Your task to perform on an android device: Go to accessibility settings Image 0: 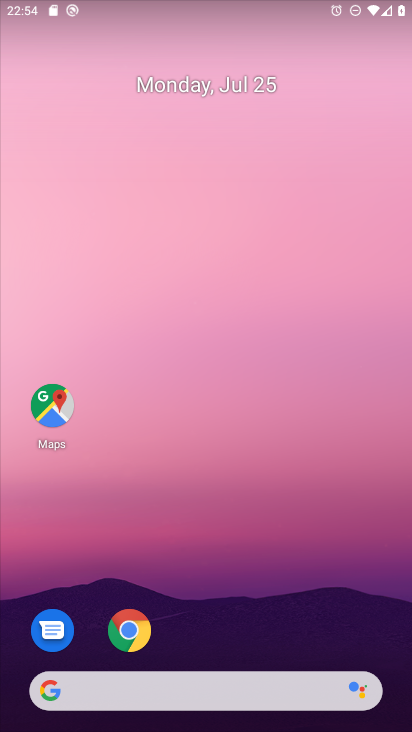
Step 0: drag from (259, 595) to (189, 16)
Your task to perform on an android device: Go to accessibility settings Image 1: 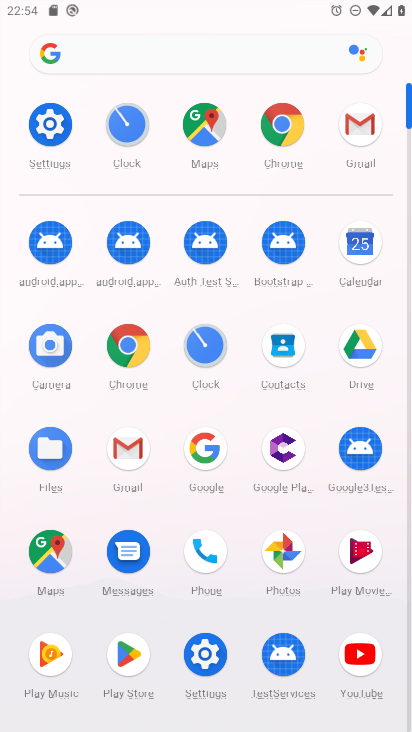
Step 1: click (45, 123)
Your task to perform on an android device: Go to accessibility settings Image 2: 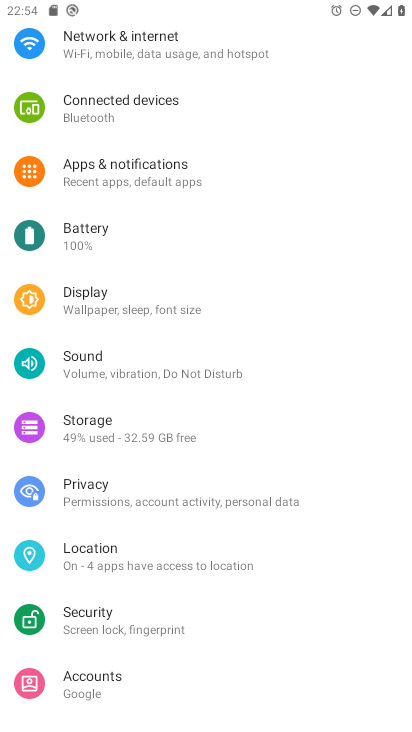
Step 2: drag from (229, 526) to (206, 140)
Your task to perform on an android device: Go to accessibility settings Image 3: 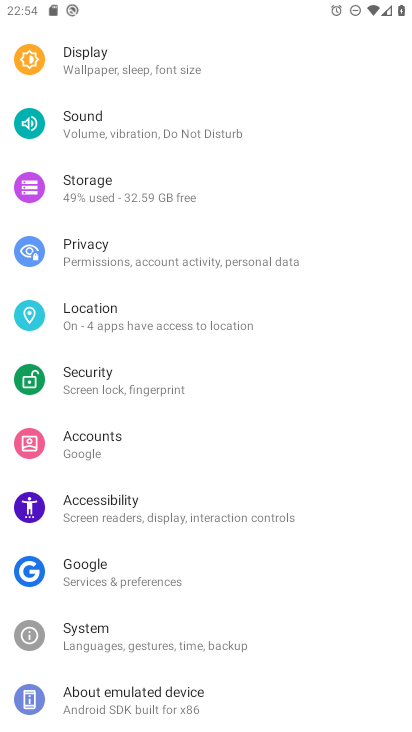
Step 3: click (153, 508)
Your task to perform on an android device: Go to accessibility settings Image 4: 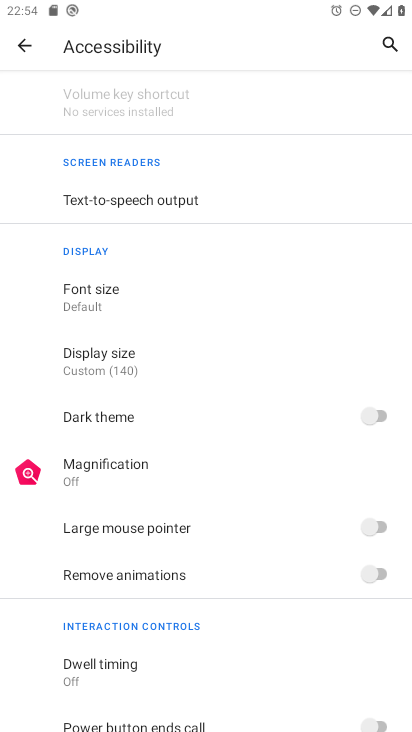
Step 4: task complete